Your task to perform on an android device: Open Google Chrome Image 0: 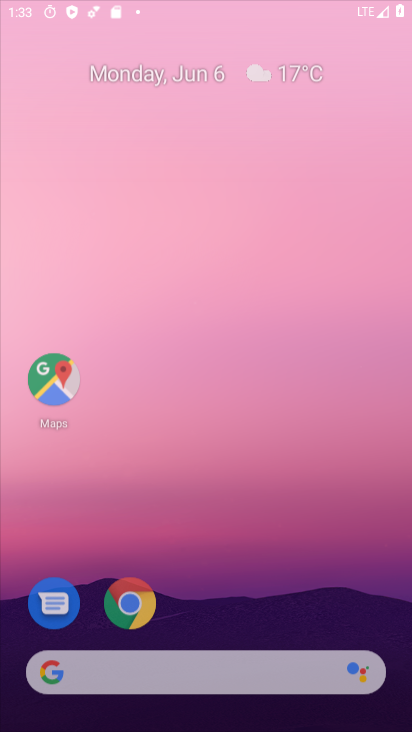
Step 0: click (247, 8)
Your task to perform on an android device: Open Google Chrome Image 1: 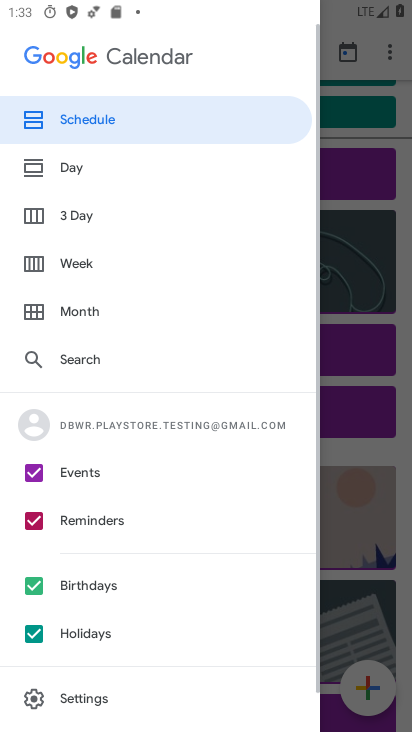
Step 1: drag from (137, 597) to (136, 112)
Your task to perform on an android device: Open Google Chrome Image 2: 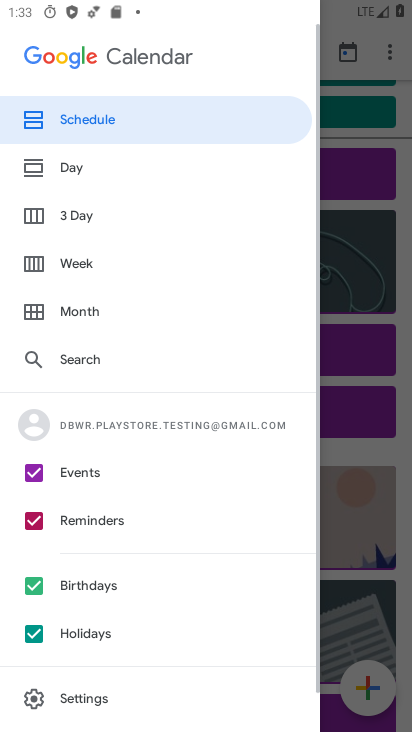
Step 2: drag from (155, 618) to (190, 160)
Your task to perform on an android device: Open Google Chrome Image 3: 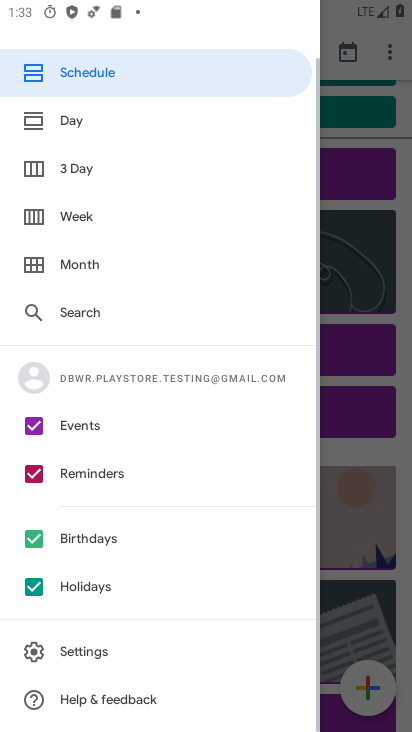
Step 3: press home button
Your task to perform on an android device: Open Google Chrome Image 4: 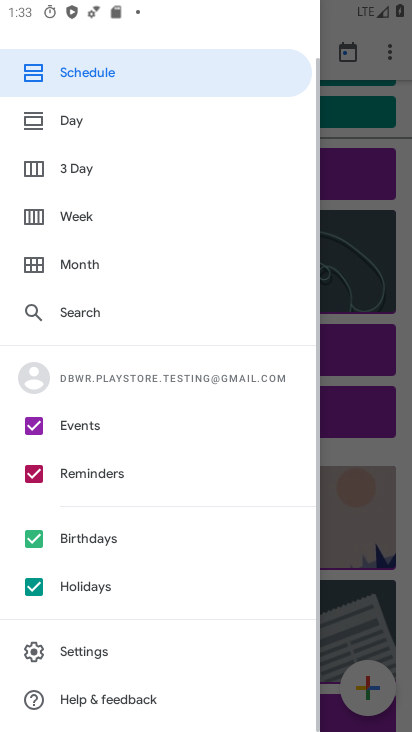
Step 4: drag from (113, 277) to (134, 116)
Your task to perform on an android device: Open Google Chrome Image 5: 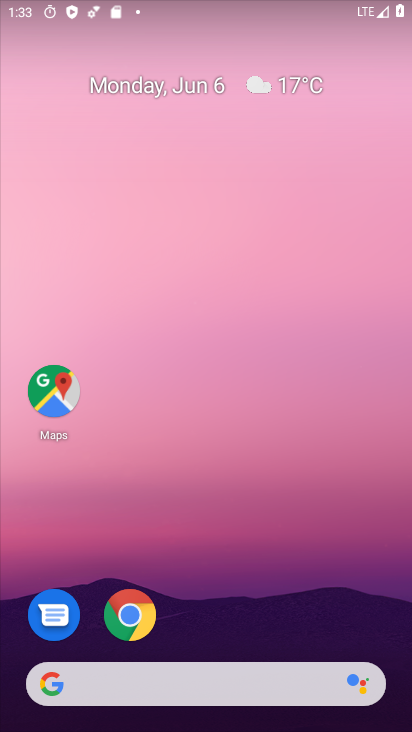
Step 5: drag from (194, 599) to (171, 121)
Your task to perform on an android device: Open Google Chrome Image 6: 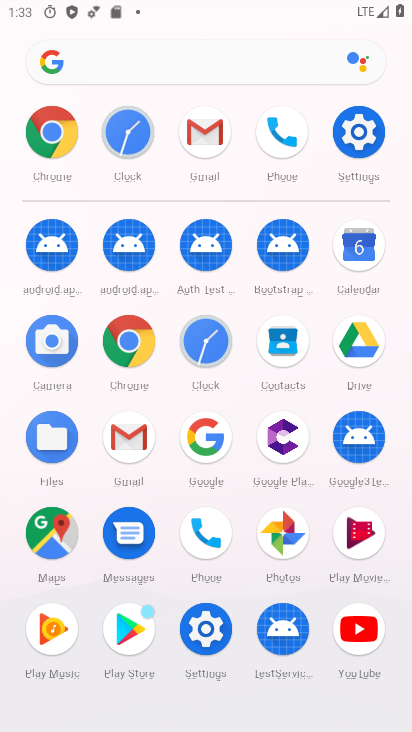
Step 6: click (123, 340)
Your task to perform on an android device: Open Google Chrome Image 7: 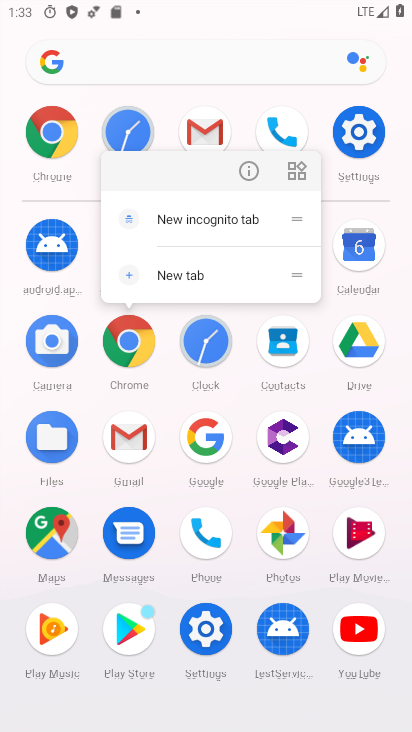
Step 7: click (250, 168)
Your task to perform on an android device: Open Google Chrome Image 8: 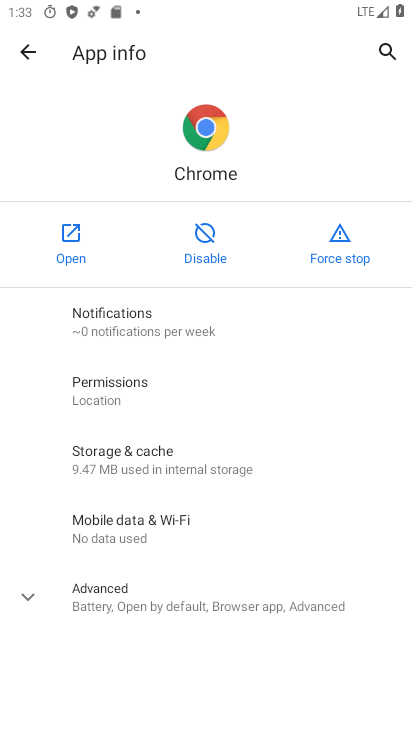
Step 8: click (80, 227)
Your task to perform on an android device: Open Google Chrome Image 9: 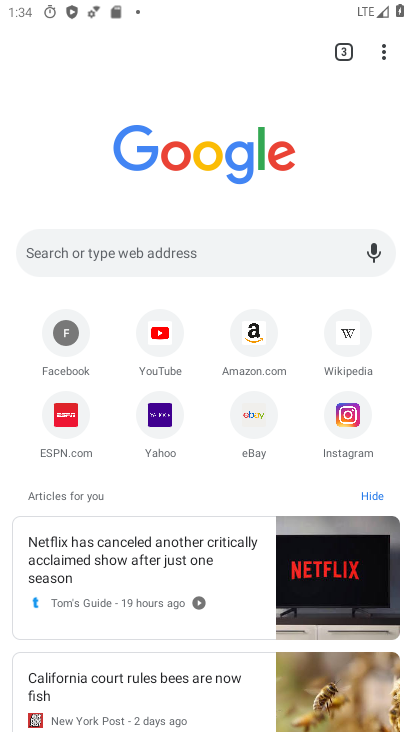
Step 9: drag from (197, 467) to (189, 137)
Your task to perform on an android device: Open Google Chrome Image 10: 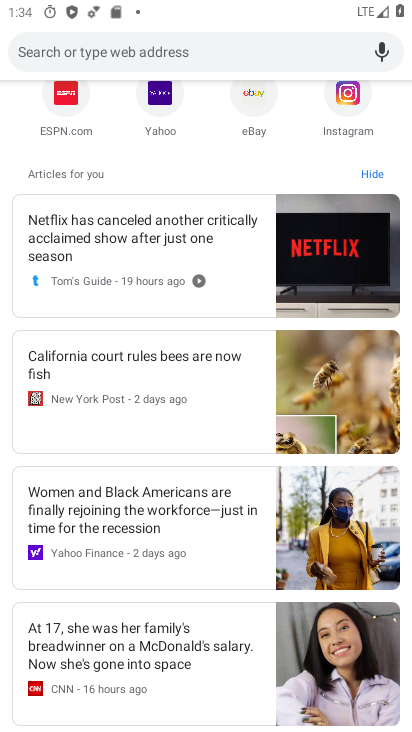
Step 10: drag from (201, 183) to (308, 697)
Your task to perform on an android device: Open Google Chrome Image 11: 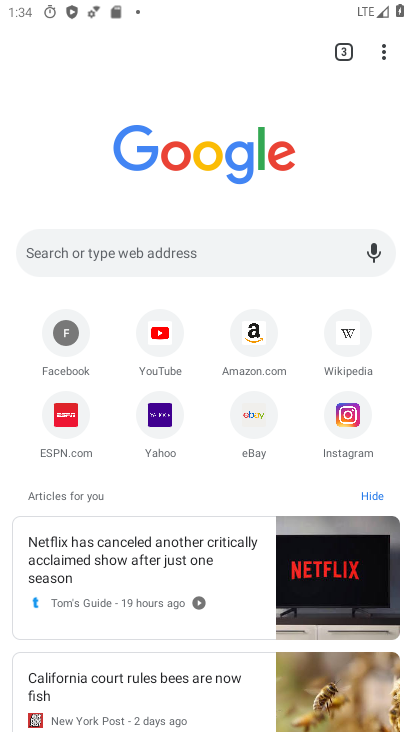
Step 11: click (381, 54)
Your task to perform on an android device: Open Google Chrome Image 12: 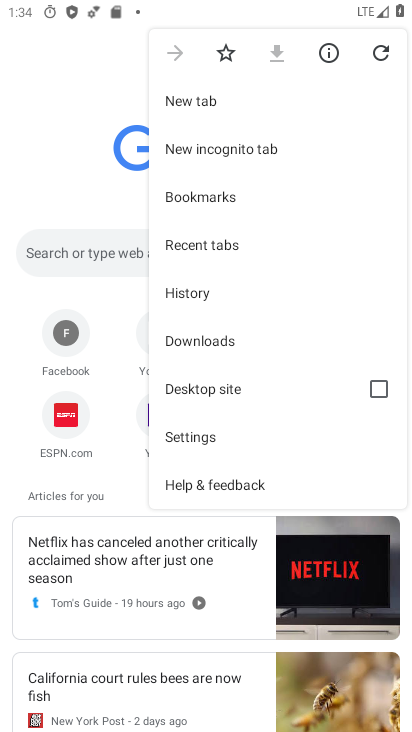
Step 12: click (203, 432)
Your task to perform on an android device: Open Google Chrome Image 13: 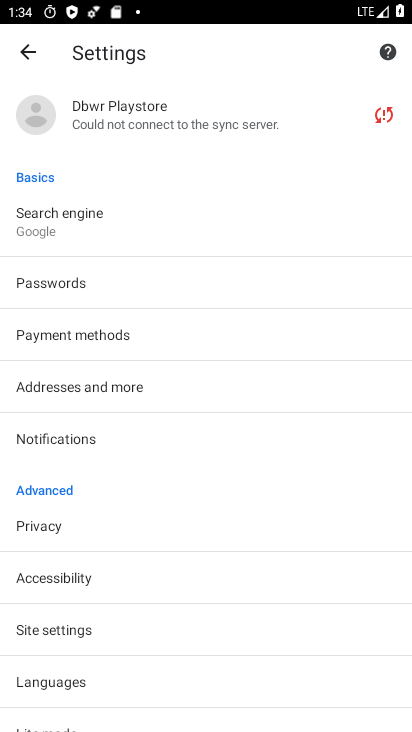
Step 13: task complete